Your task to perform on an android device: Open CNN.com Image 0: 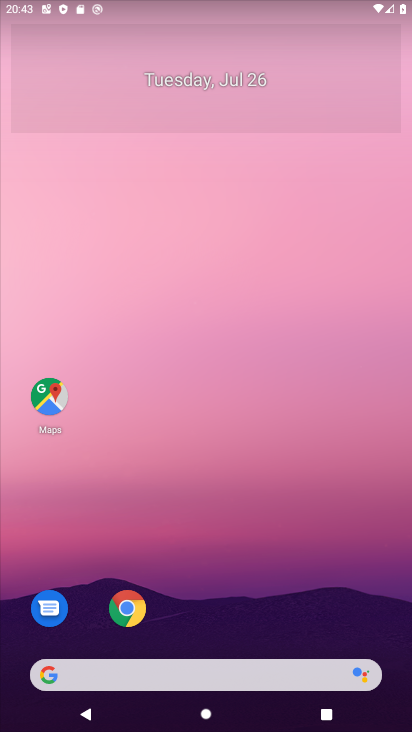
Step 0: click (124, 670)
Your task to perform on an android device: Open CNN.com Image 1: 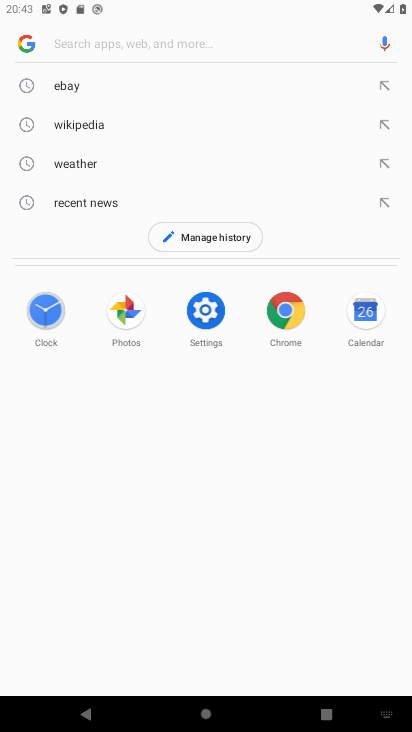
Step 1: type "CNN.com"
Your task to perform on an android device: Open CNN.com Image 2: 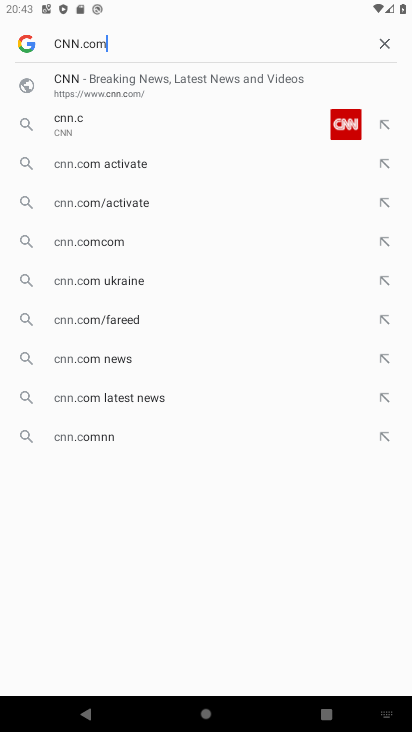
Step 2: type ""
Your task to perform on an android device: Open CNN.com Image 3: 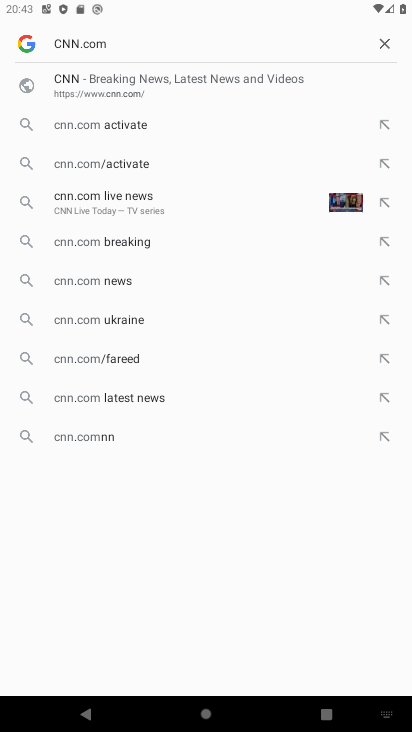
Step 3: click (64, 83)
Your task to perform on an android device: Open CNN.com Image 4: 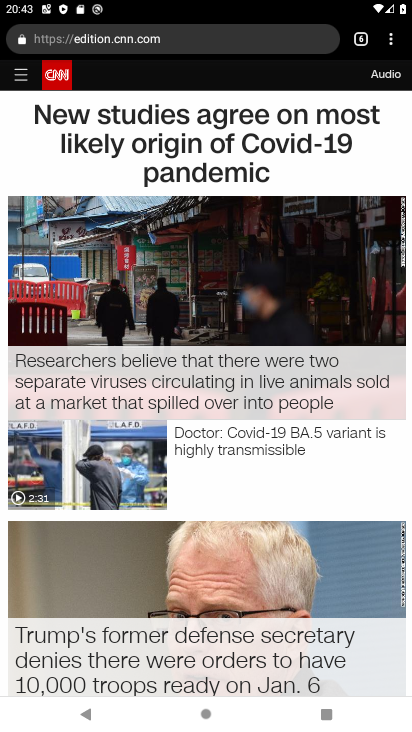
Step 4: task complete